Your task to perform on an android device: empty trash in google photos Image 0: 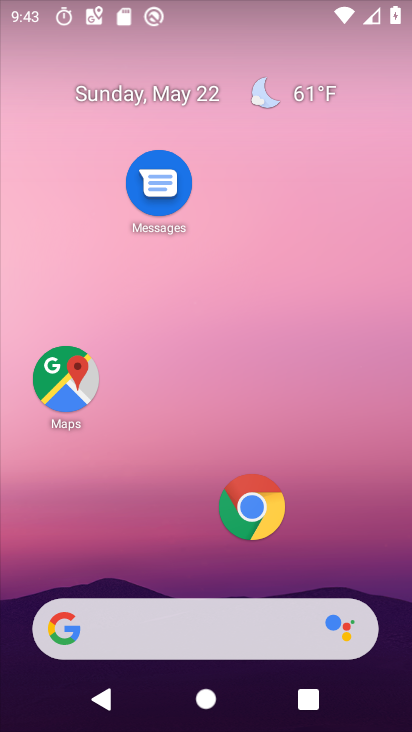
Step 0: drag from (170, 536) to (209, 65)
Your task to perform on an android device: empty trash in google photos Image 1: 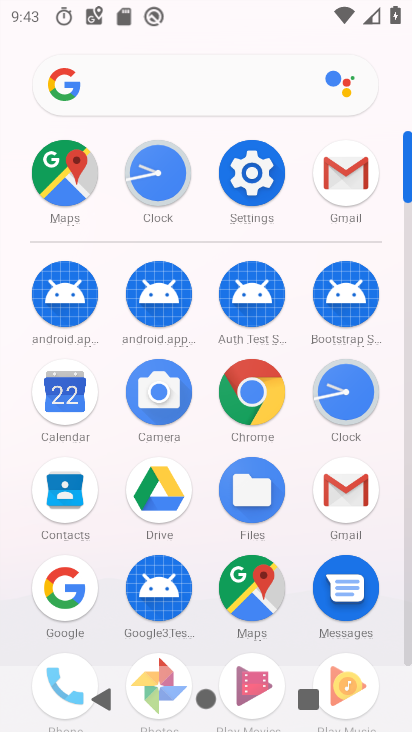
Step 1: drag from (210, 541) to (192, 138)
Your task to perform on an android device: empty trash in google photos Image 2: 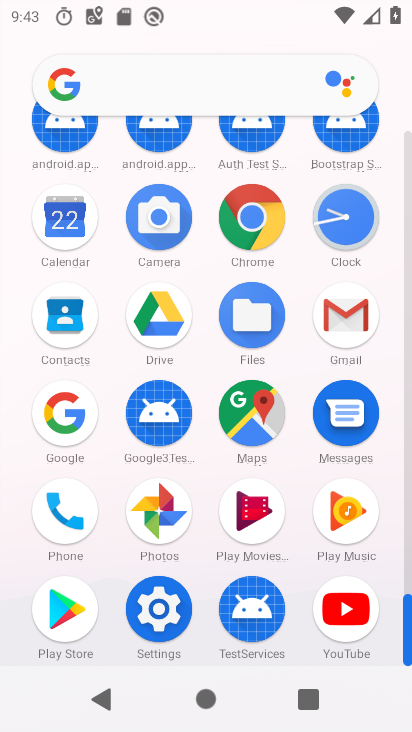
Step 2: click (153, 520)
Your task to perform on an android device: empty trash in google photos Image 3: 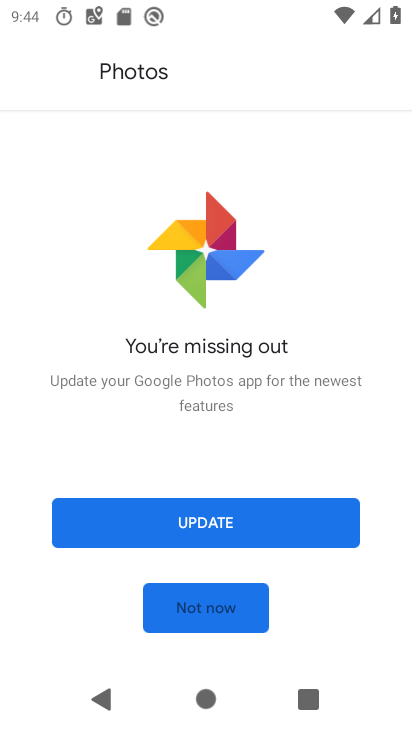
Step 3: click (208, 613)
Your task to perform on an android device: empty trash in google photos Image 4: 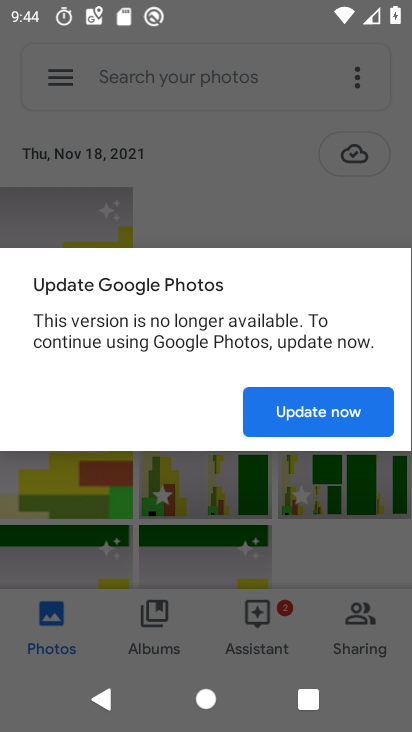
Step 4: click (325, 399)
Your task to perform on an android device: empty trash in google photos Image 5: 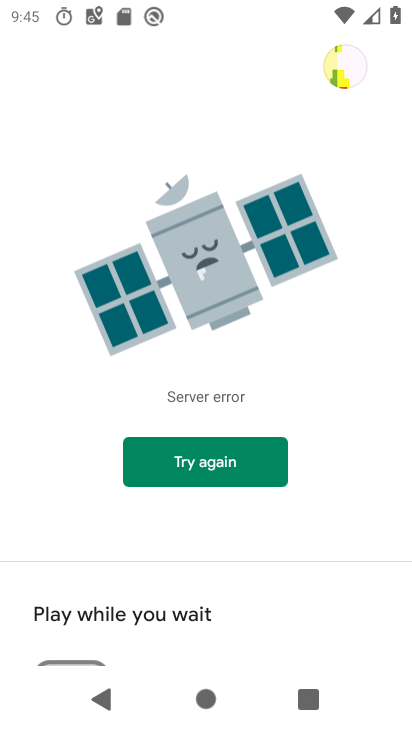
Step 5: task complete